Your task to perform on an android device: Show me recent news Image 0: 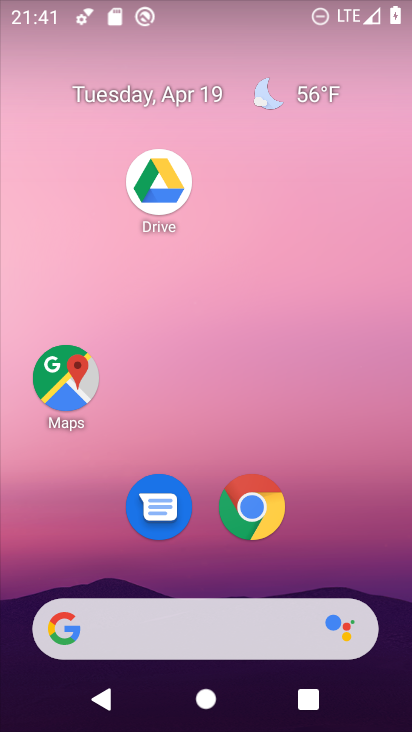
Step 0: click (258, 621)
Your task to perform on an android device: Show me recent news Image 1: 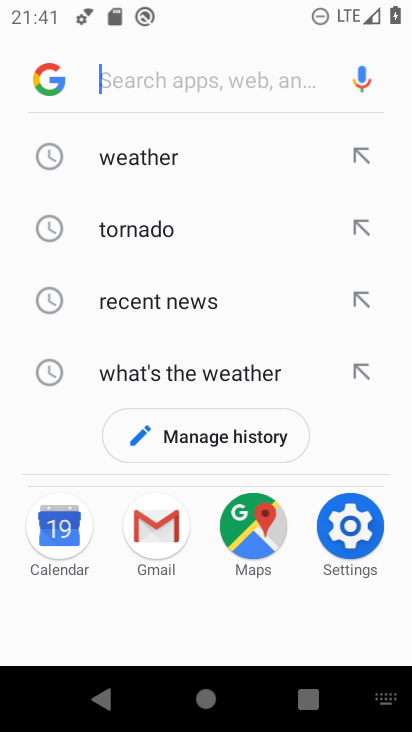
Step 1: click (218, 295)
Your task to perform on an android device: Show me recent news Image 2: 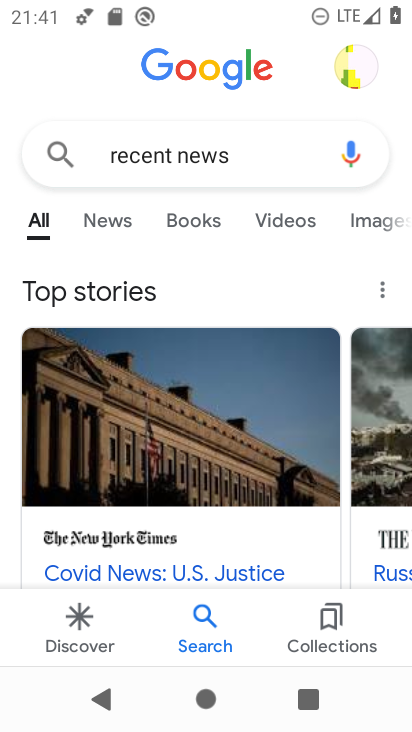
Step 2: task complete